Your task to perform on an android device: remove spam from my inbox in the gmail app Image 0: 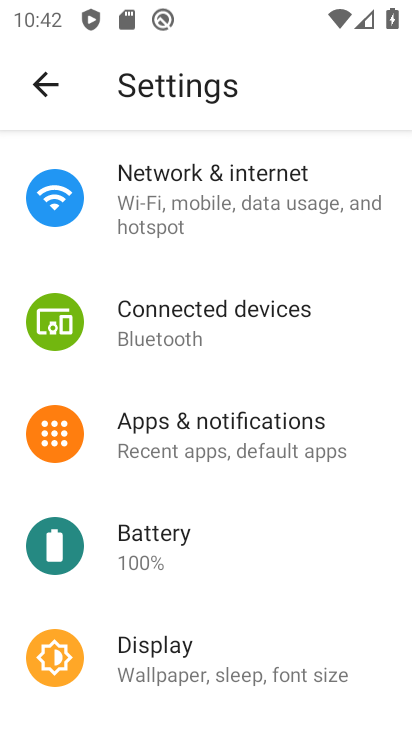
Step 0: press home button
Your task to perform on an android device: remove spam from my inbox in the gmail app Image 1: 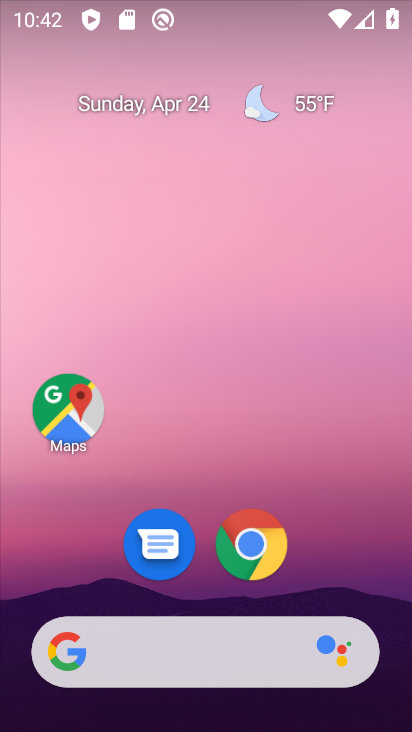
Step 1: drag from (338, 572) to (305, 193)
Your task to perform on an android device: remove spam from my inbox in the gmail app Image 2: 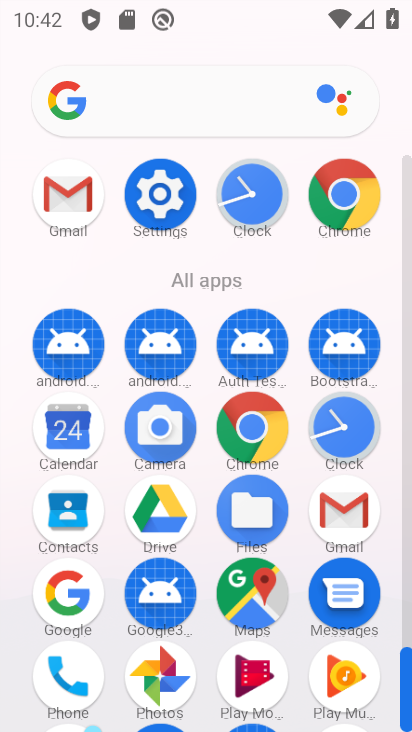
Step 2: click (72, 204)
Your task to perform on an android device: remove spam from my inbox in the gmail app Image 3: 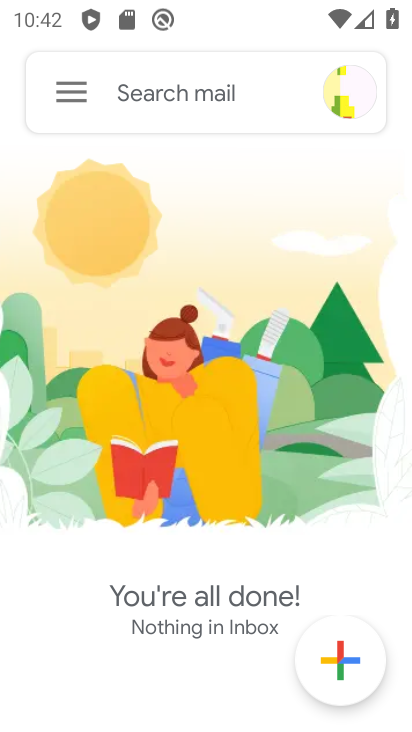
Step 3: click (65, 95)
Your task to perform on an android device: remove spam from my inbox in the gmail app Image 4: 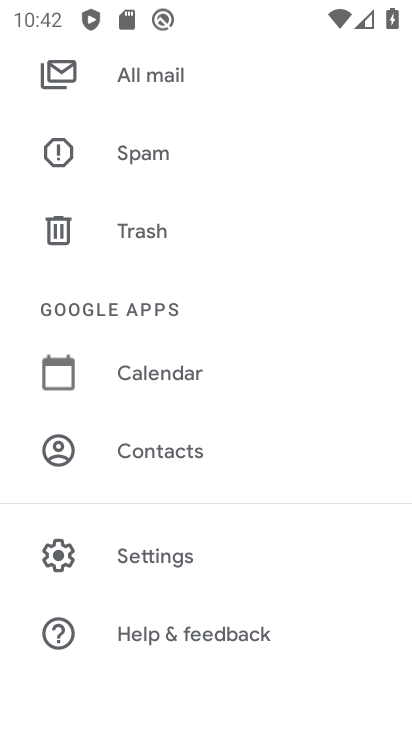
Step 4: click (121, 158)
Your task to perform on an android device: remove spam from my inbox in the gmail app Image 5: 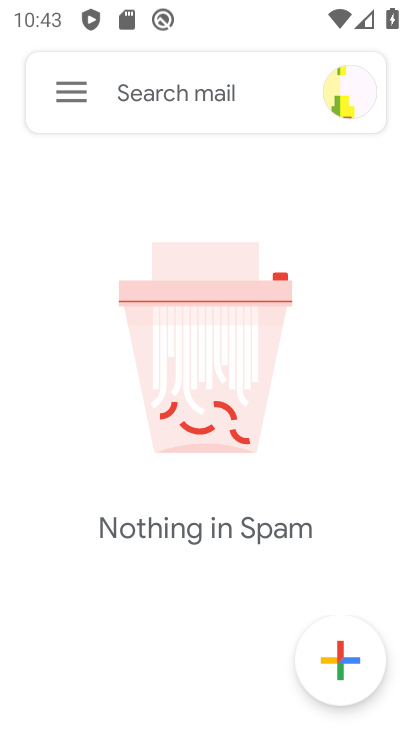
Step 5: task complete